Your task to perform on an android device: open app "VLC for Android" (install if not already installed), go to login, and select forgot password Image 0: 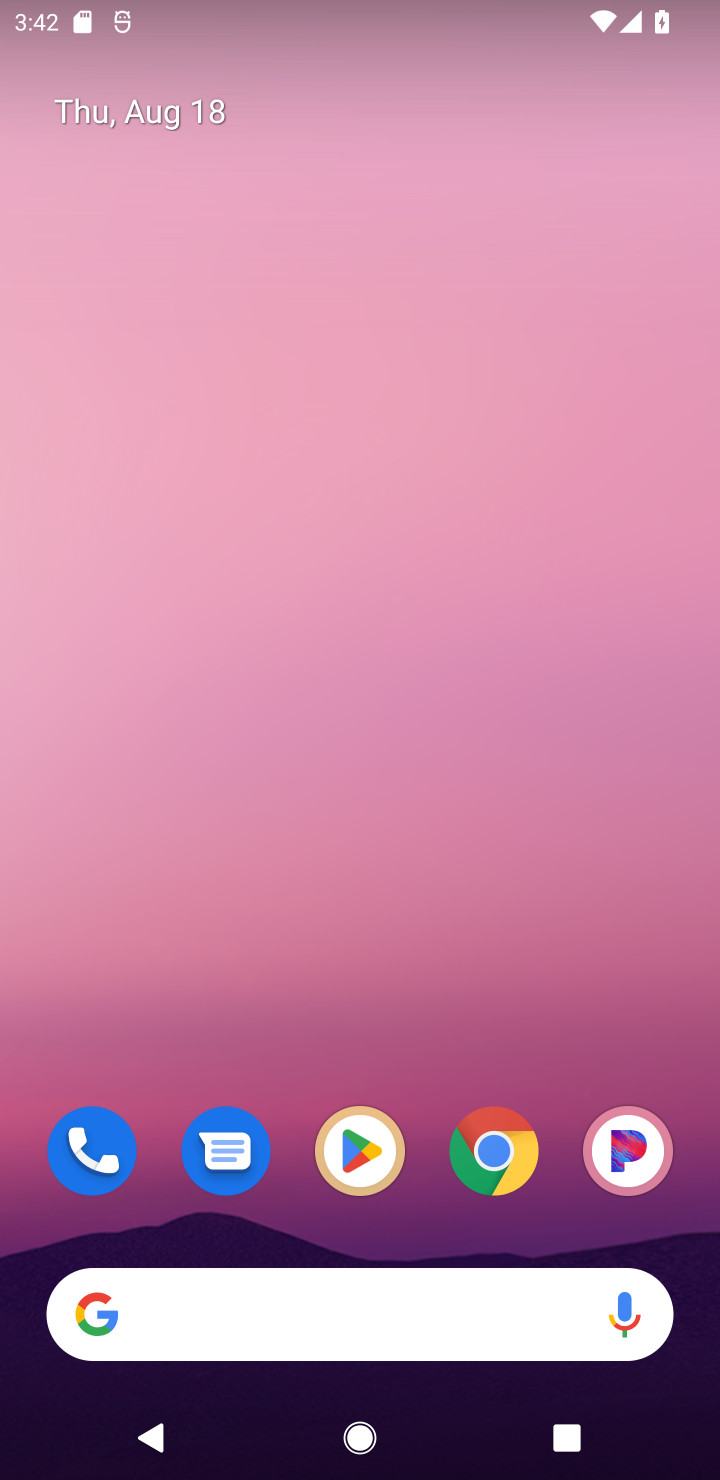
Step 0: click (379, 1164)
Your task to perform on an android device: open app "VLC for Android" (install if not already installed), go to login, and select forgot password Image 1: 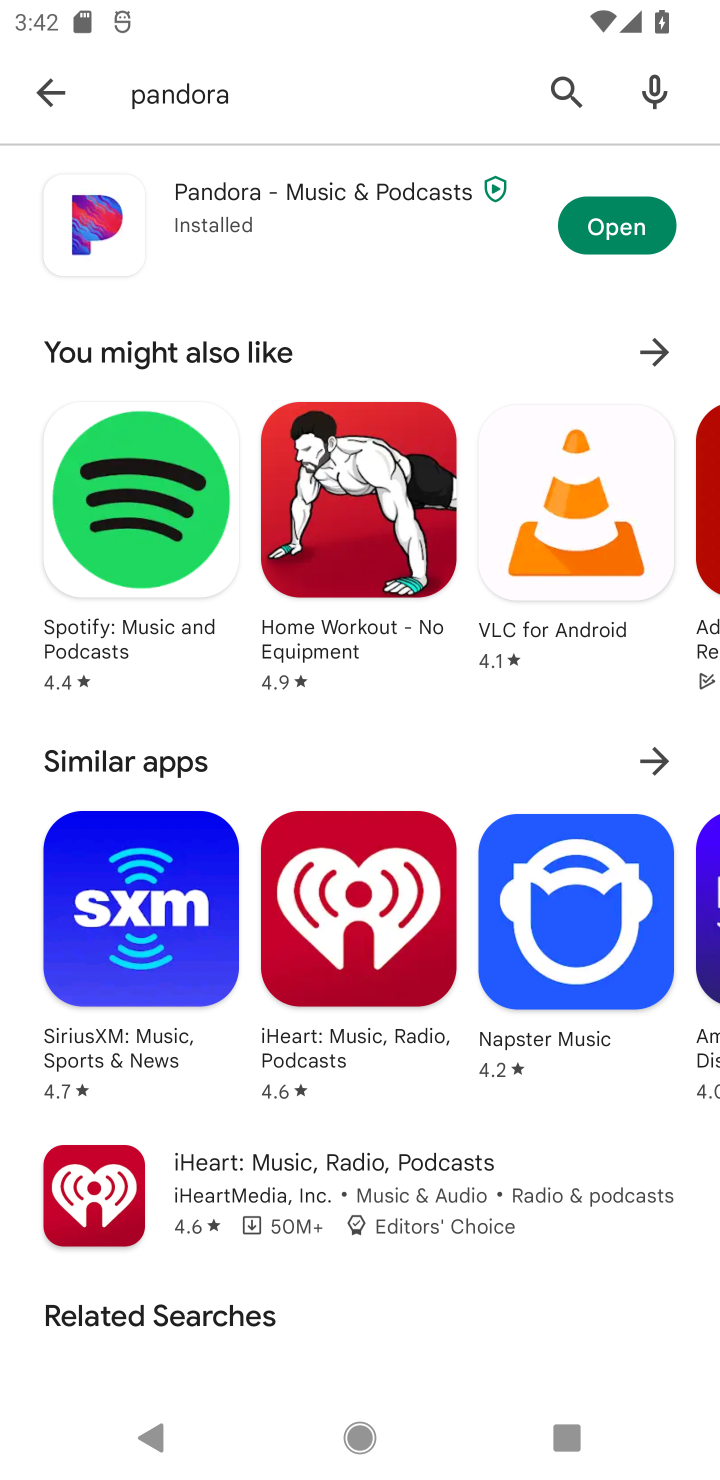
Step 1: click (560, 101)
Your task to perform on an android device: open app "VLC for Android" (install if not already installed), go to login, and select forgot password Image 2: 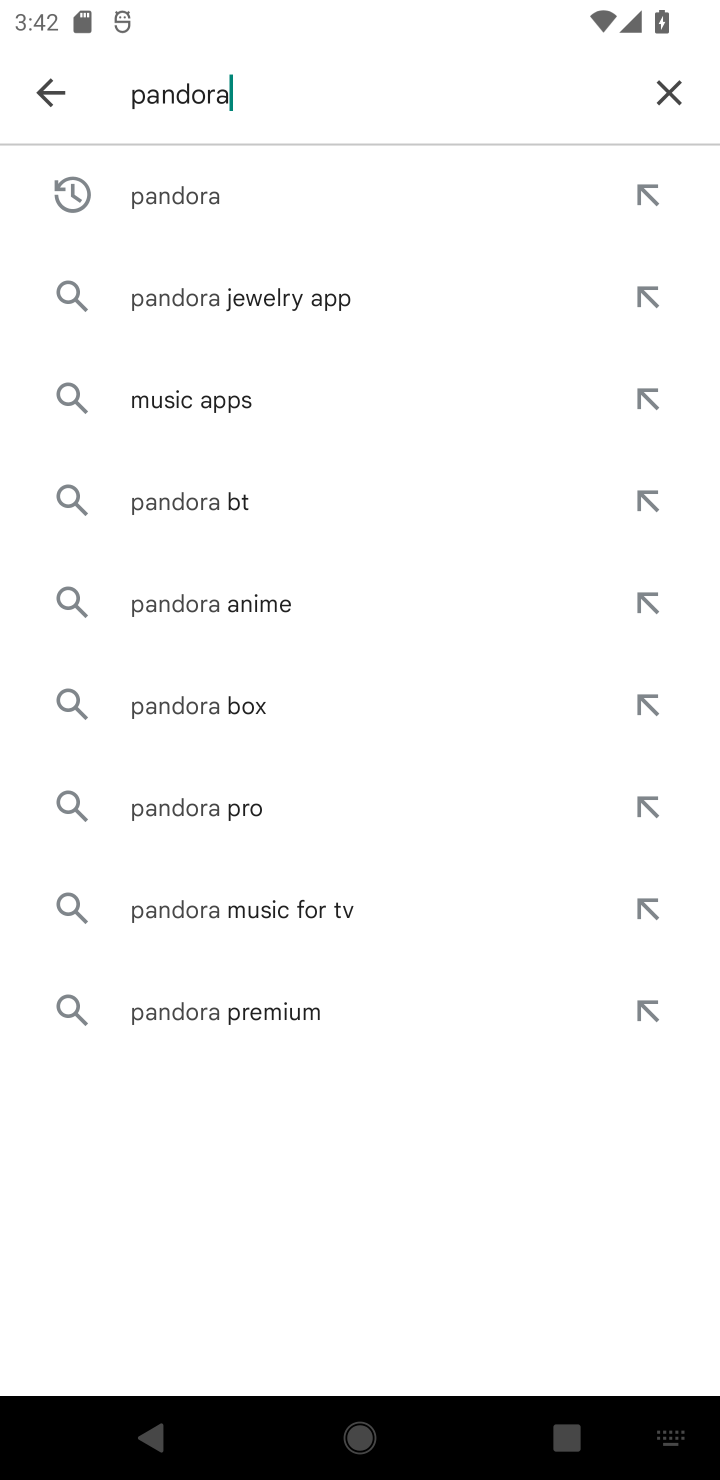
Step 2: click (659, 99)
Your task to perform on an android device: open app "VLC for Android" (install if not already installed), go to login, and select forgot password Image 3: 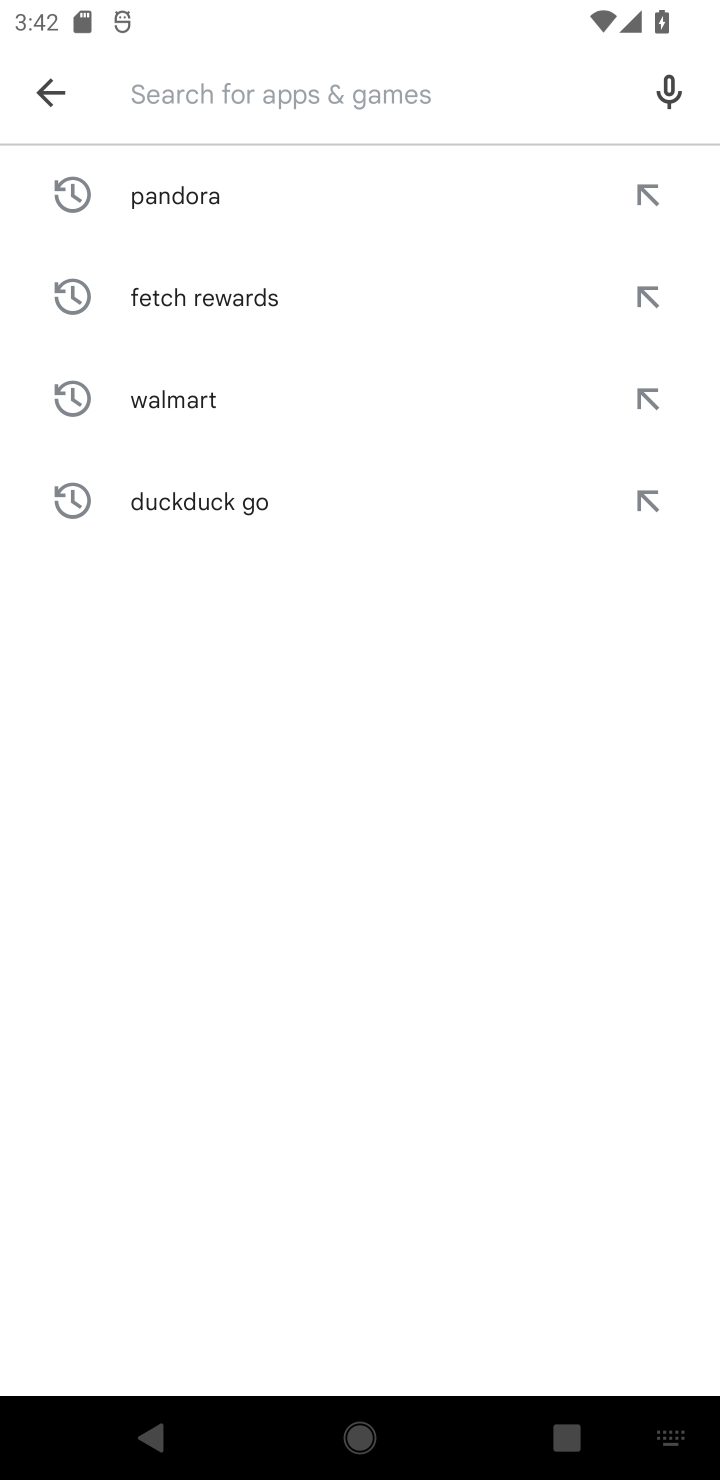
Step 3: type "vlc anroid"
Your task to perform on an android device: open app "VLC for Android" (install if not already installed), go to login, and select forgot password Image 4: 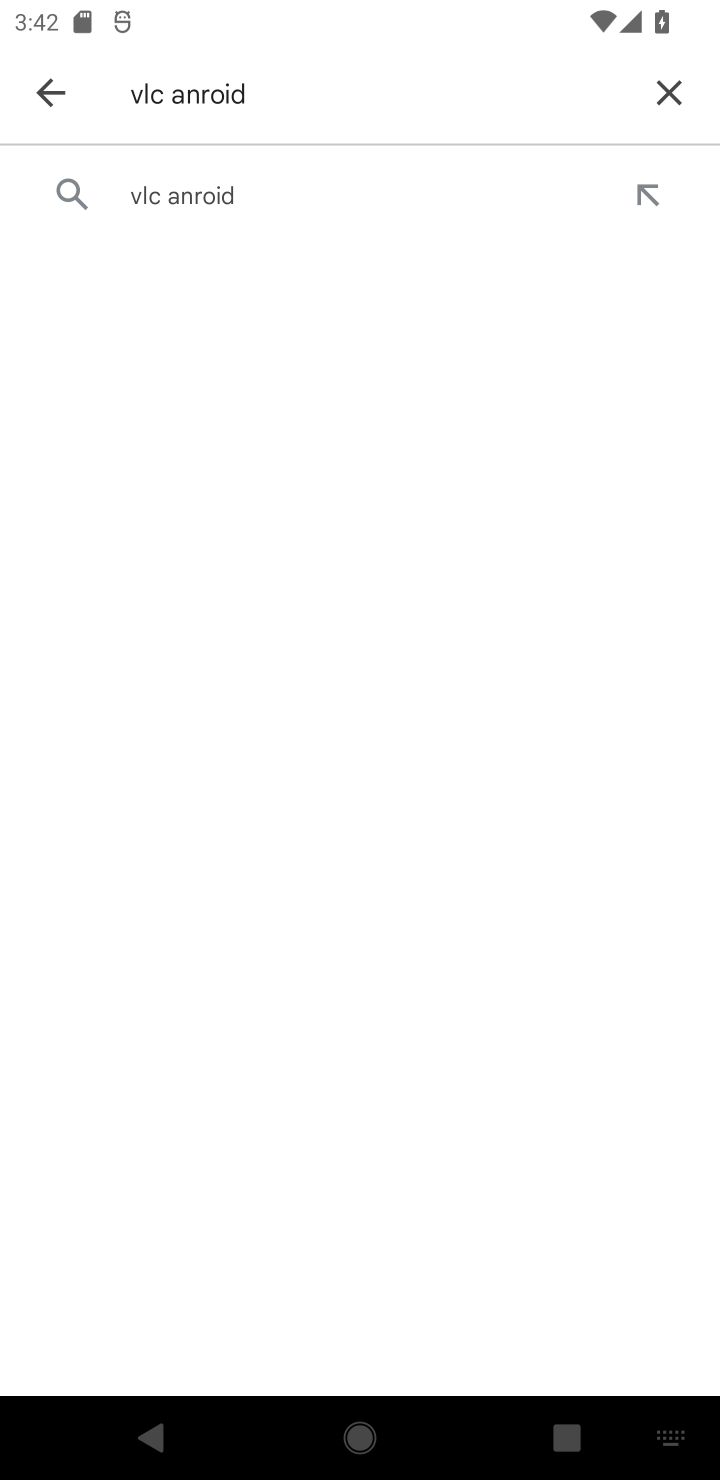
Step 4: click (219, 216)
Your task to perform on an android device: open app "VLC for Android" (install if not already installed), go to login, and select forgot password Image 5: 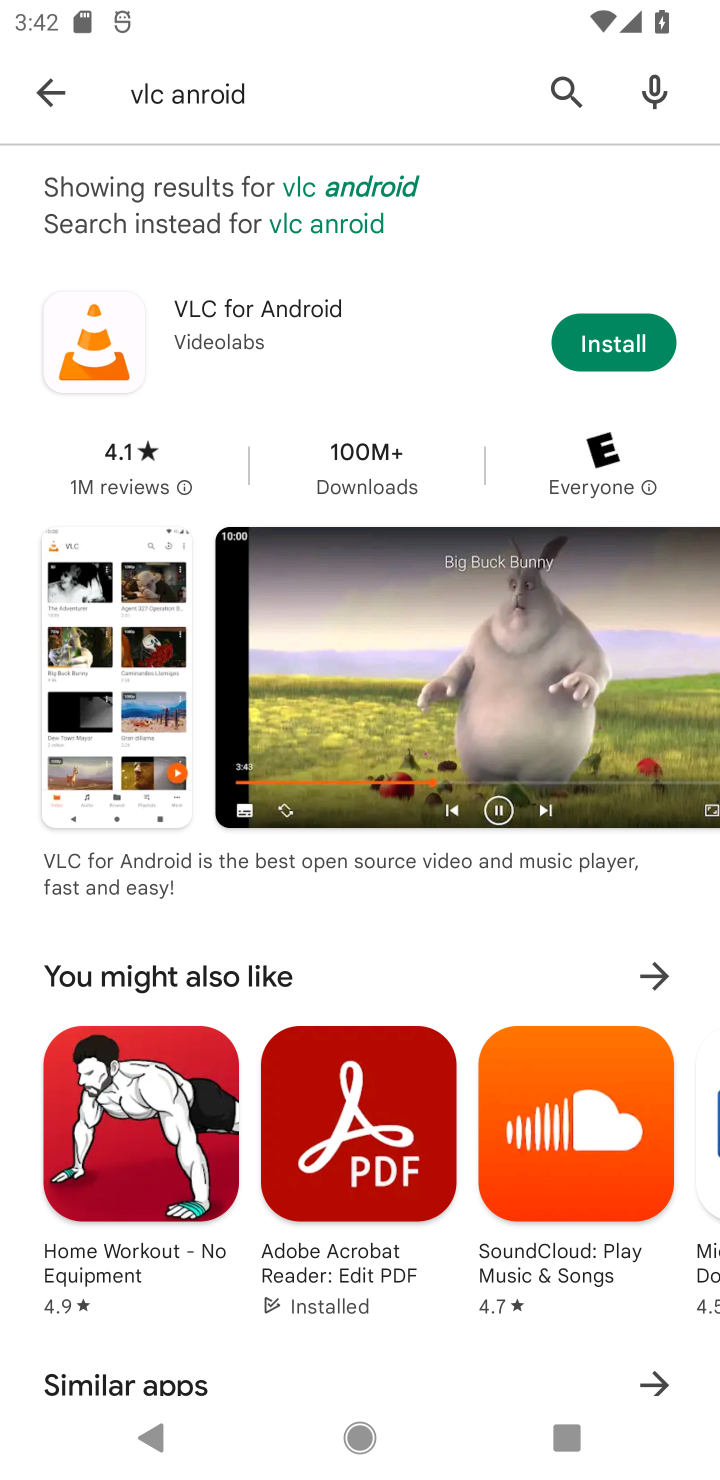
Step 5: click (592, 343)
Your task to perform on an android device: open app "VLC for Android" (install if not already installed), go to login, and select forgot password Image 6: 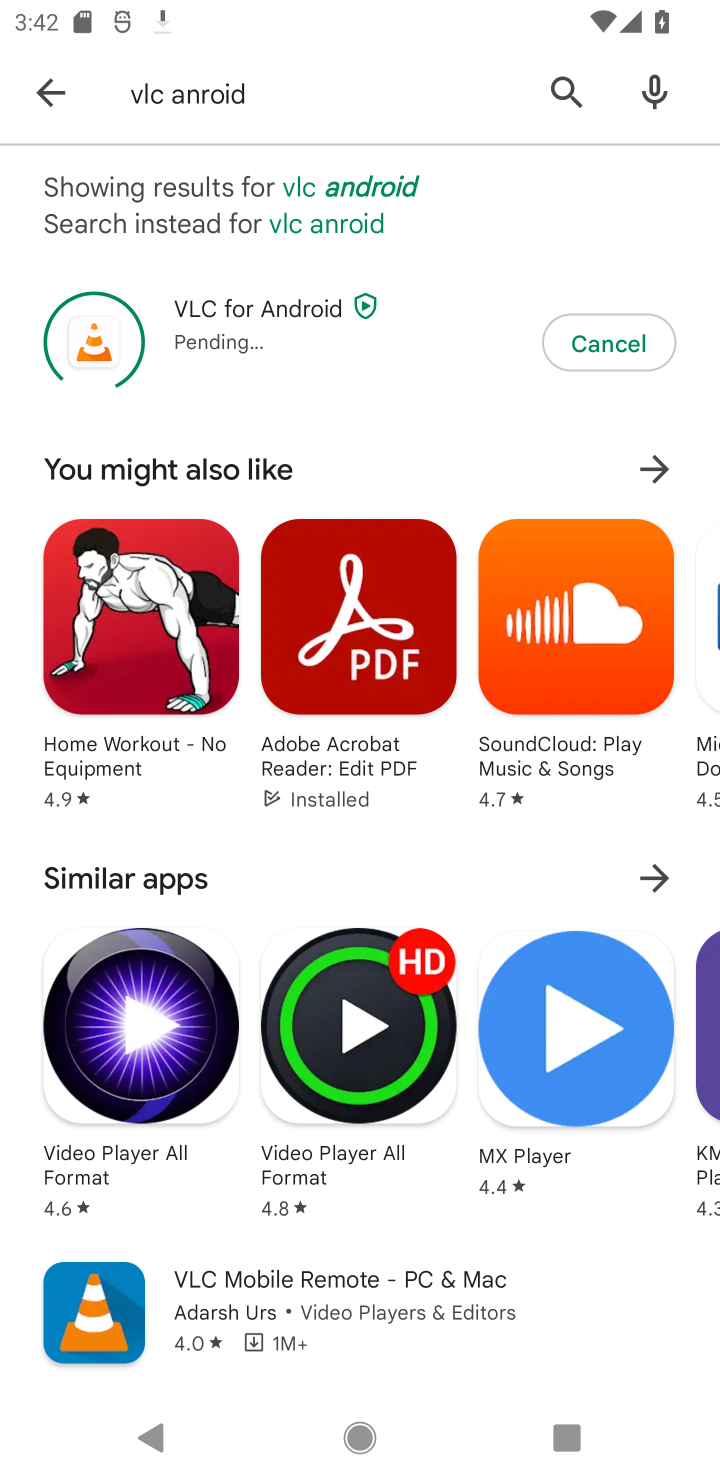
Step 6: task complete